Your task to perform on an android device: Go to Android settings Image 0: 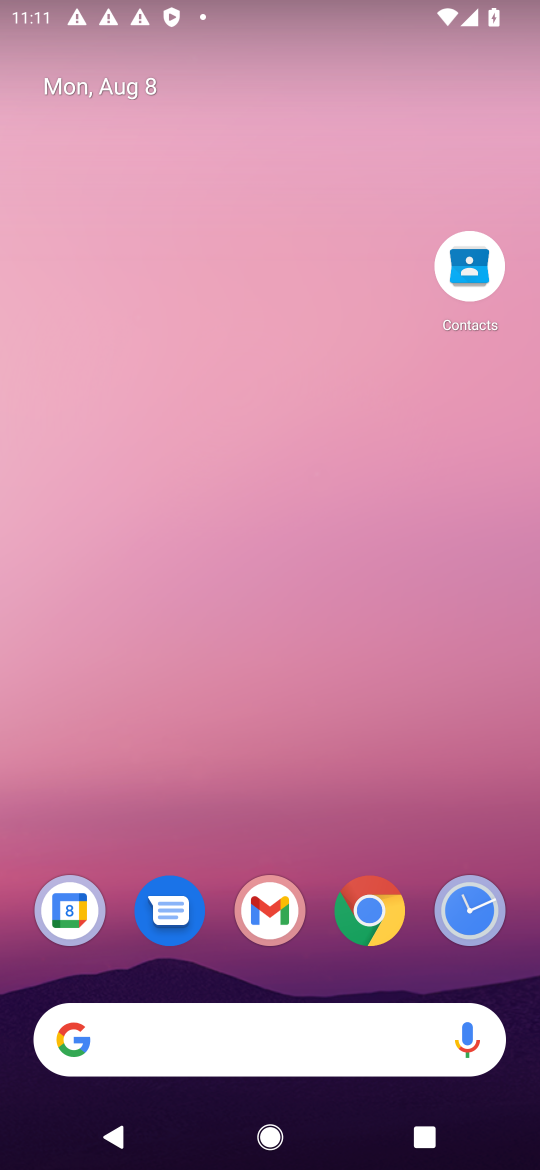
Step 0: drag from (306, 978) to (273, 47)
Your task to perform on an android device: Go to Android settings Image 1: 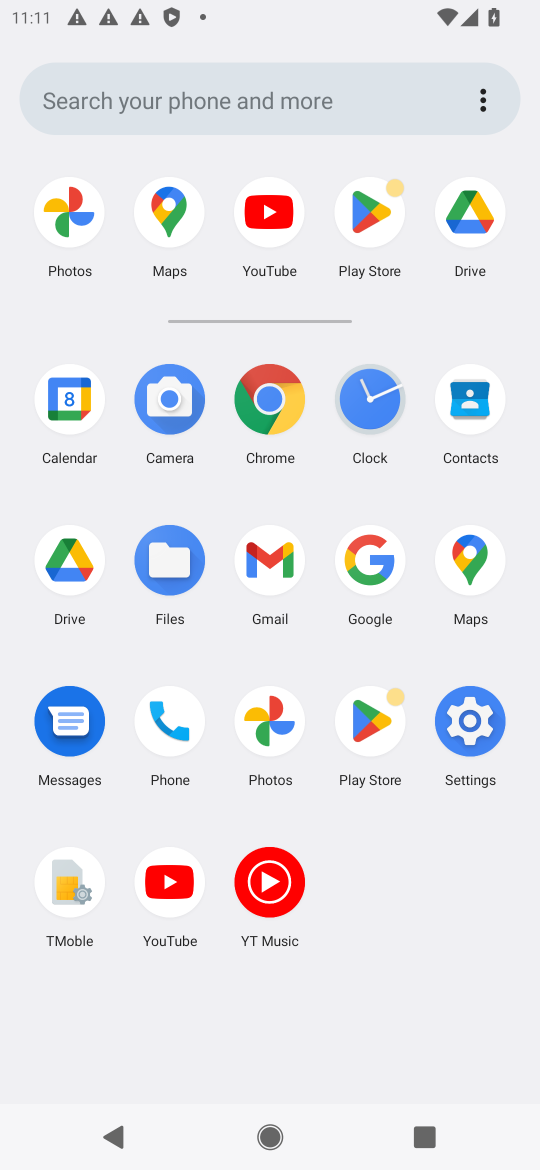
Step 1: click (456, 750)
Your task to perform on an android device: Go to Android settings Image 2: 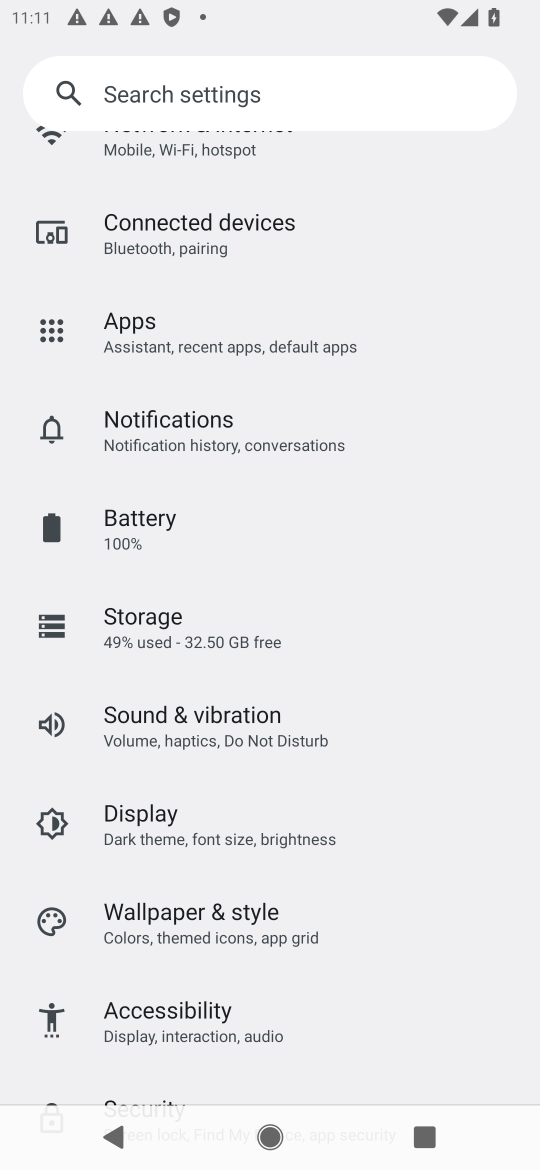
Step 2: drag from (227, 806) to (305, 170)
Your task to perform on an android device: Go to Android settings Image 3: 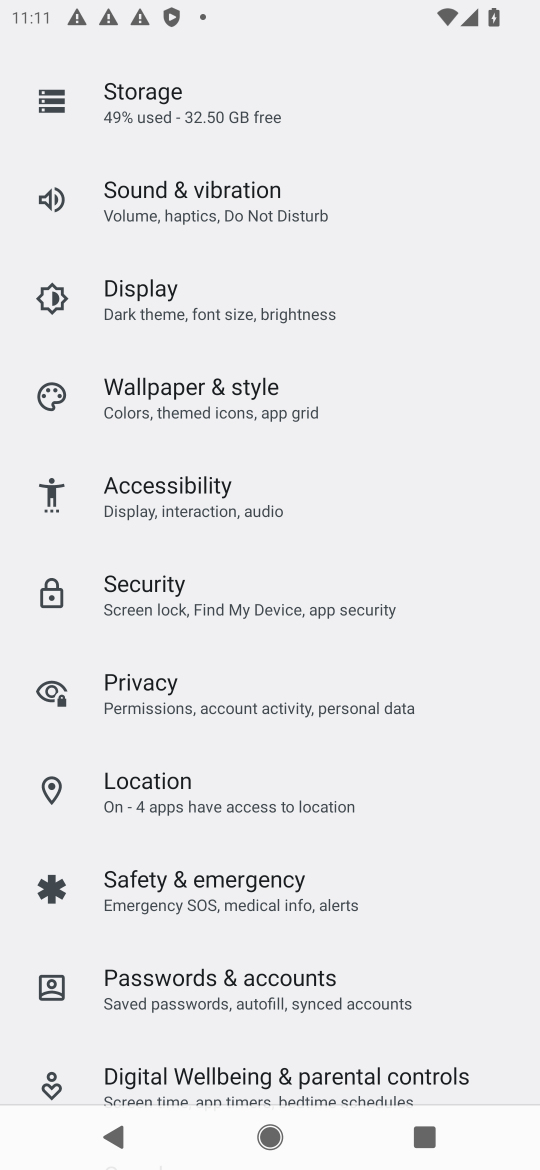
Step 3: drag from (224, 305) to (243, 1068)
Your task to perform on an android device: Go to Android settings Image 4: 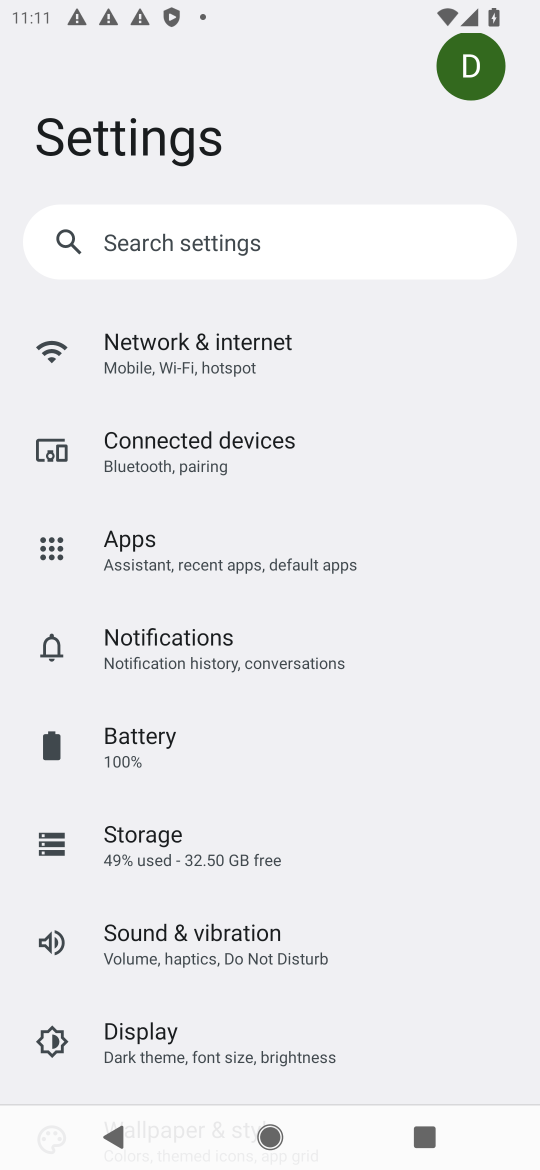
Step 4: click (92, 281)
Your task to perform on an android device: Go to Android settings Image 5: 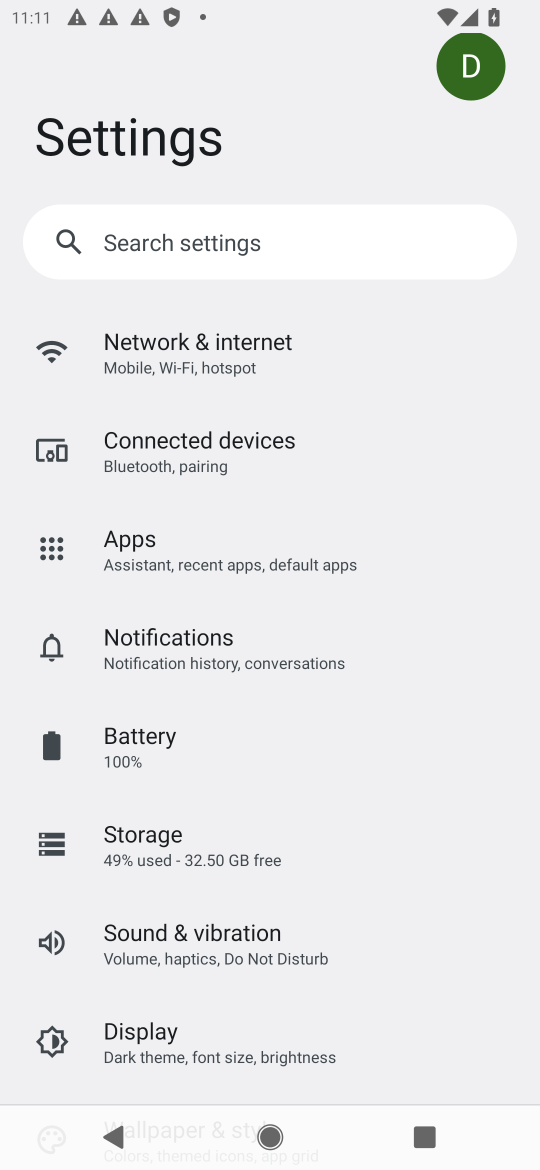
Step 5: task complete